Your task to perform on an android device: allow notifications from all sites in the chrome app Image 0: 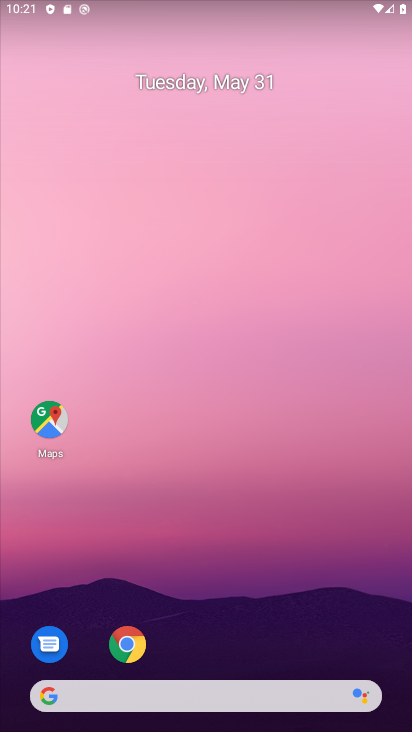
Step 0: click (125, 641)
Your task to perform on an android device: allow notifications from all sites in the chrome app Image 1: 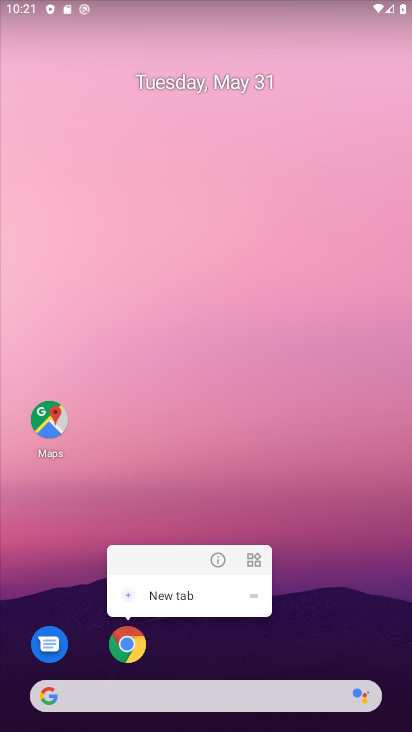
Step 1: click (118, 644)
Your task to perform on an android device: allow notifications from all sites in the chrome app Image 2: 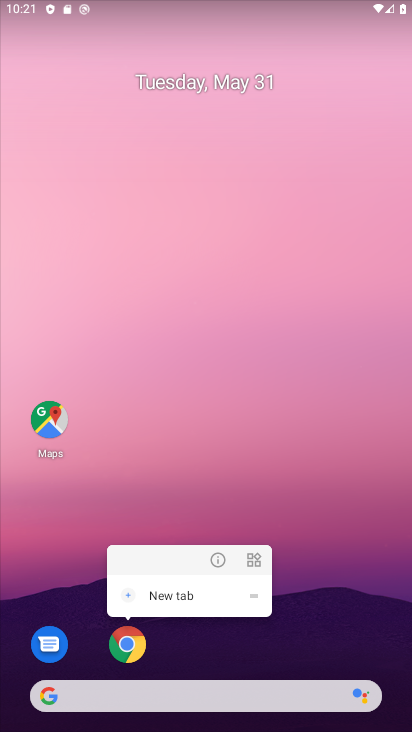
Step 2: click (215, 556)
Your task to perform on an android device: allow notifications from all sites in the chrome app Image 3: 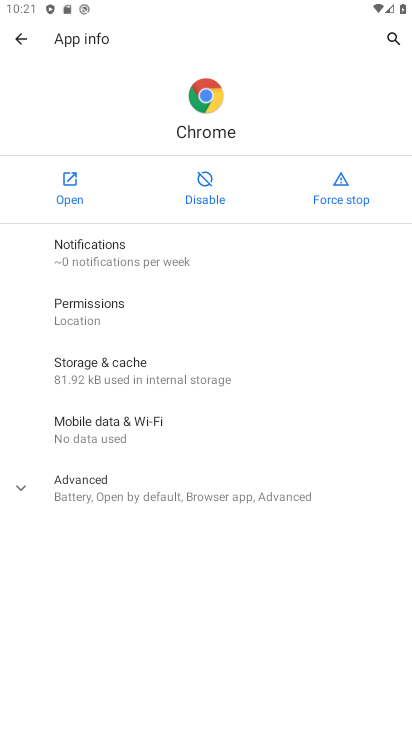
Step 3: click (54, 202)
Your task to perform on an android device: allow notifications from all sites in the chrome app Image 4: 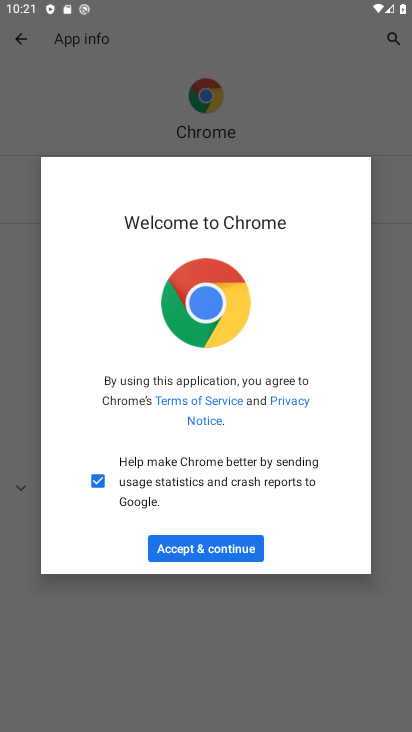
Step 4: click (240, 548)
Your task to perform on an android device: allow notifications from all sites in the chrome app Image 5: 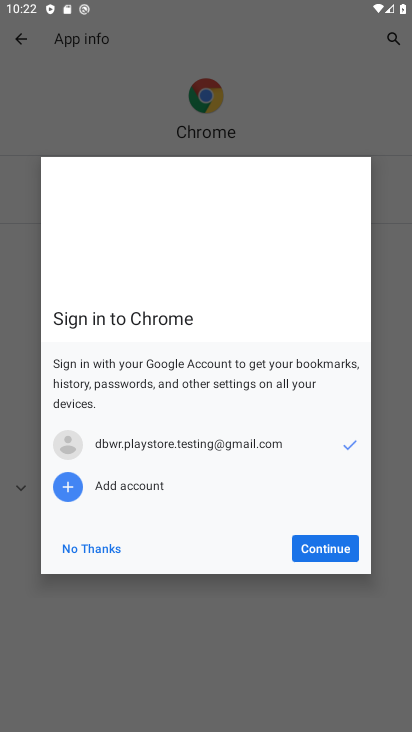
Step 5: click (343, 542)
Your task to perform on an android device: allow notifications from all sites in the chrome app Image 6: 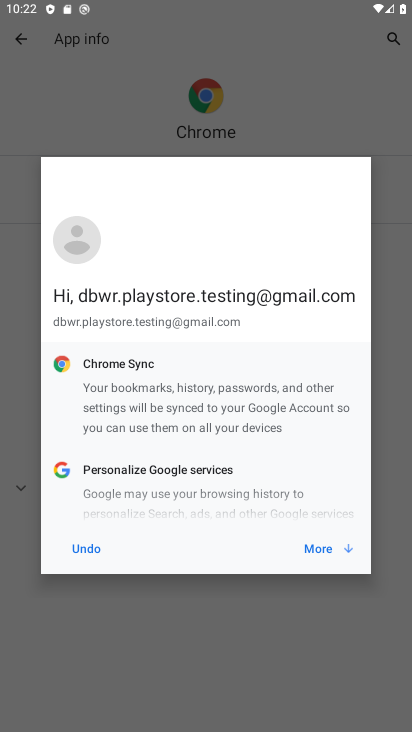
Step 6: click (325, 552)
Your task to perform on an android device: allow notifications from all sites in the chrome app Image 7: 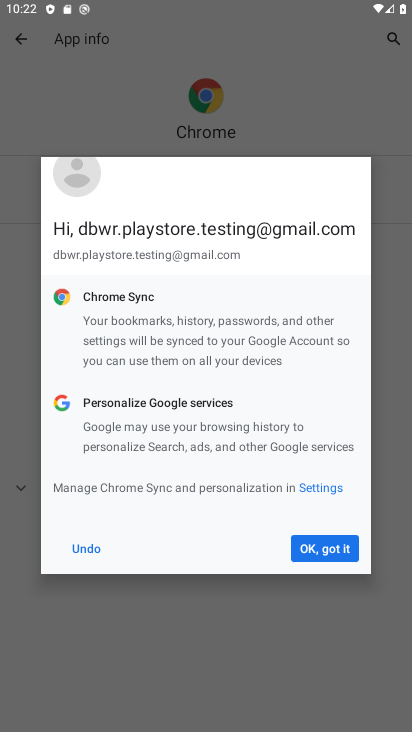
Step 7: click (334, 552)
Your task to perform on an android device: allow notifications from all sites in the chrome app Image 8: 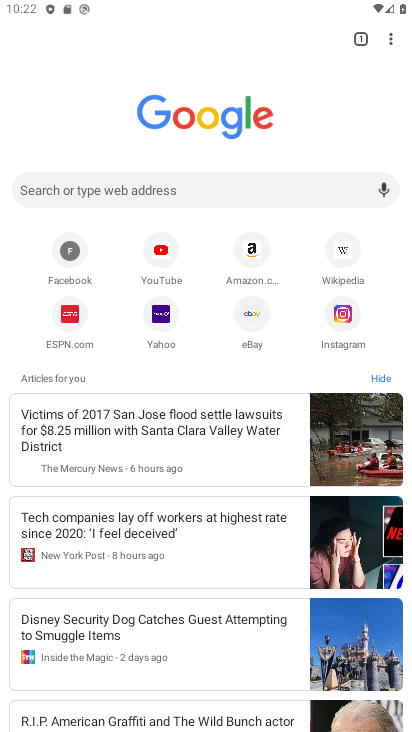
Step 8: click (389, 40)
Your task to perform on an android device: allow notifications from all sites in the chrome app Image 9: 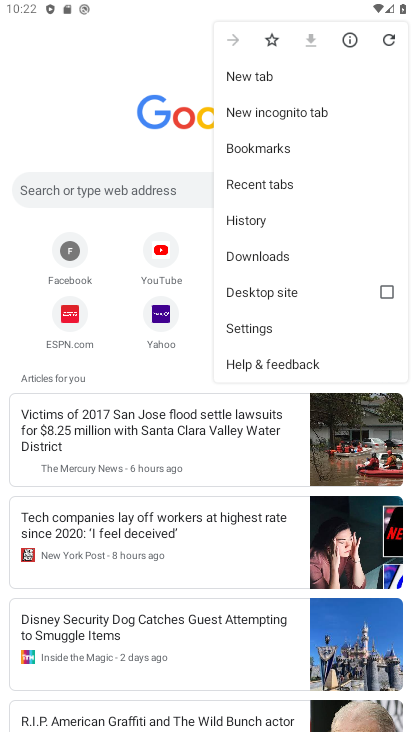
Step 9: click (265, 330)
Your task to perform on an android device: allow notifications from all sites in the chrome app Image 10: 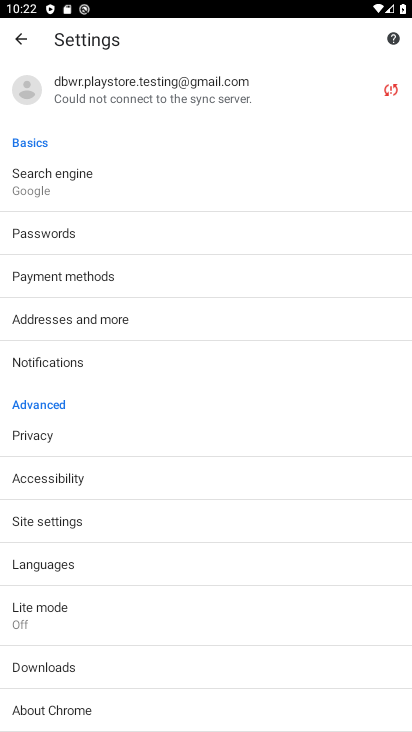
Step 10: click (71, 367)
Your task to perform on an android device: allow notifications from all sites in the chrome app Image 11: 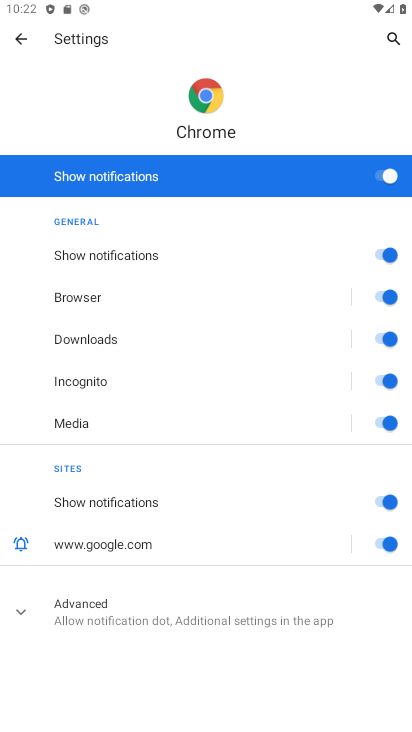
Step 11: task complete